Your task to perform on an android device: Open Google Chrome and click the shortcut for Amazon.com Image 0: 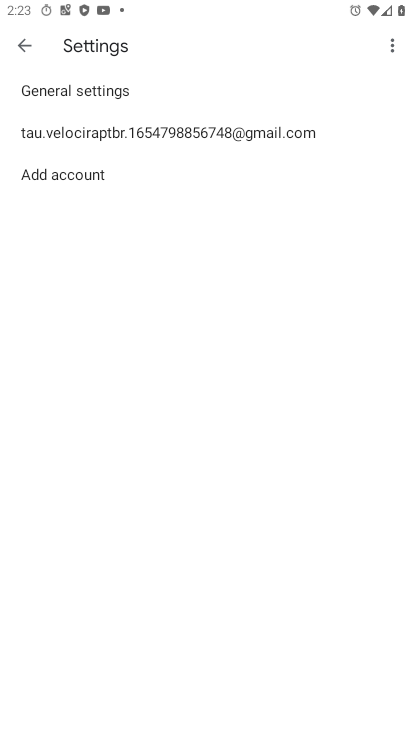
Step 0: press home button
Your task to perform on an android device: Open Google Chrome and click the shortcut for Amazon.com Image 1: 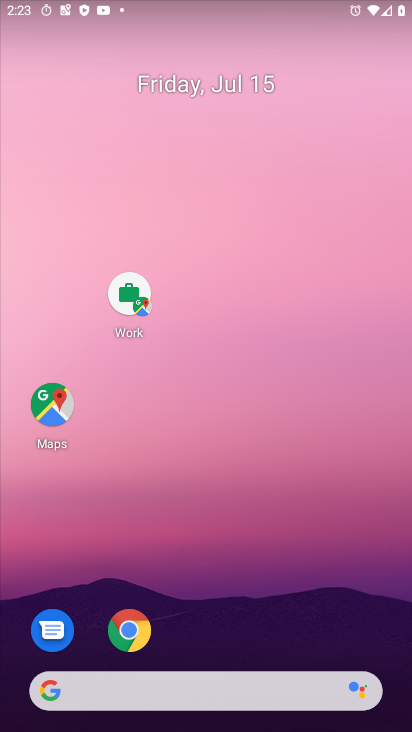
Step 1: click (129, 625)
Your task to perform on an android device: Open Google Chrome and click the shortcut for Amazon.com Image 2: 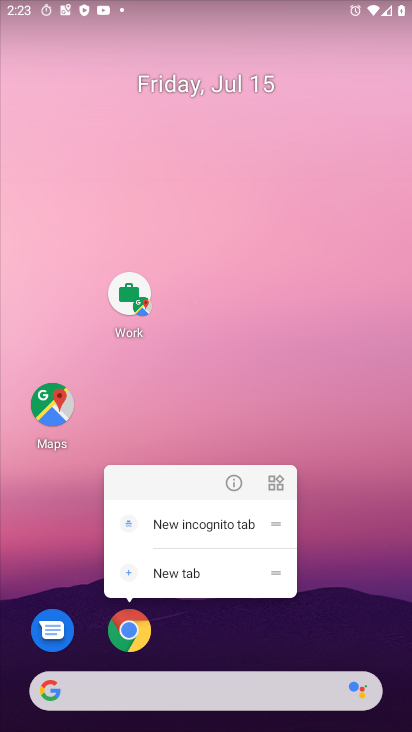
Step 2: click (139, 622)
Your task to perform on an android device: Open Google Chrome and click the shortcut for Amazon.com Image 3: 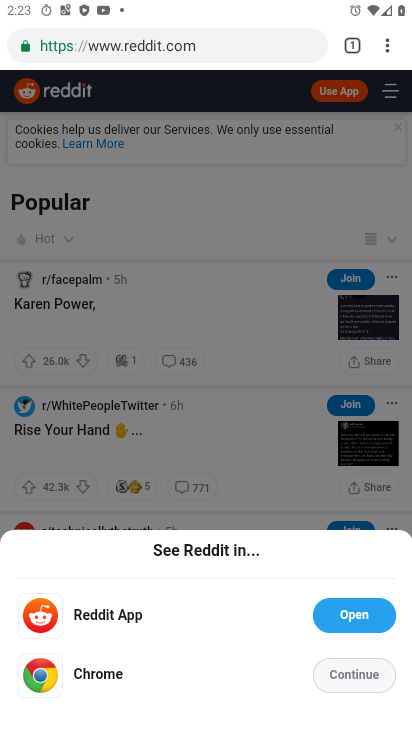
Step 3: click (324, 669)
Your task to perform on an android device: Open Google Chrome and click the shortcut for Amazon.com Image 4: 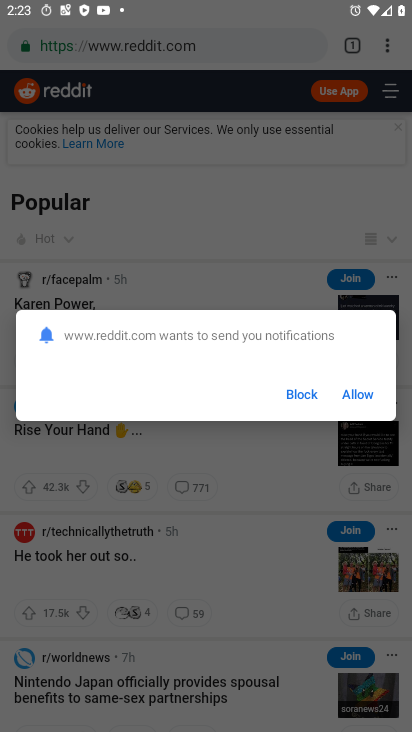
Step 4: task complete